Your task to perform on an android device: What's the news in Jamaica? Image 0: 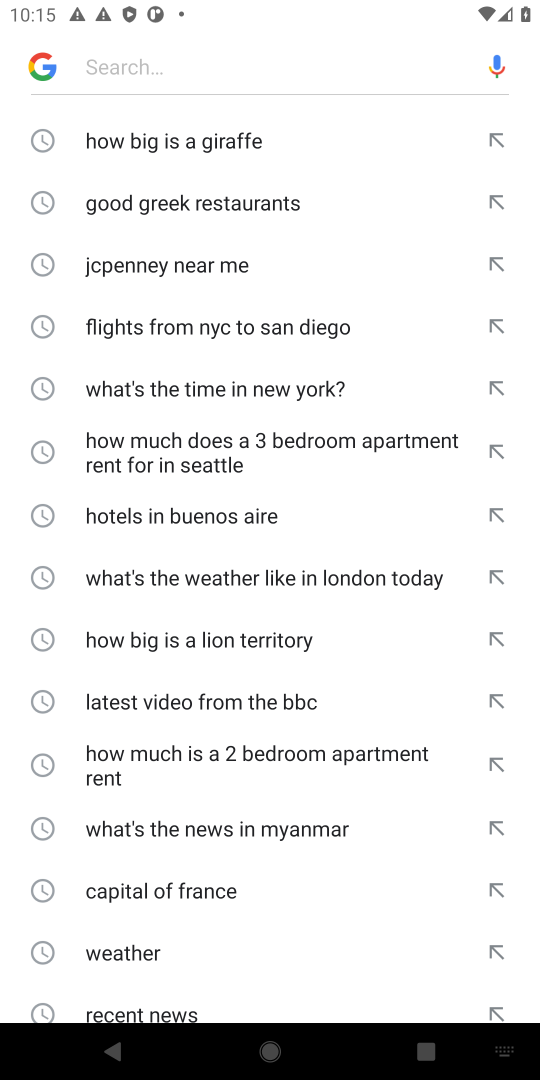
Step 0: click (269, 956)
Your task to perform on an android device: What's the news in Jamaica? Image 1: 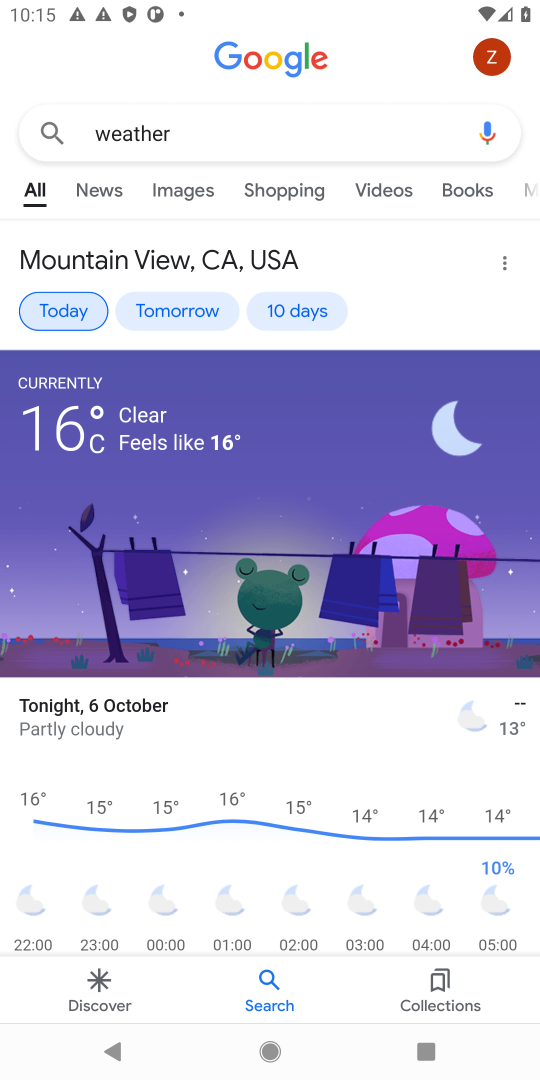
Step 1: click (114, 55)
Your task to perform on an android device: What's the news in Jamaica? Image 2: 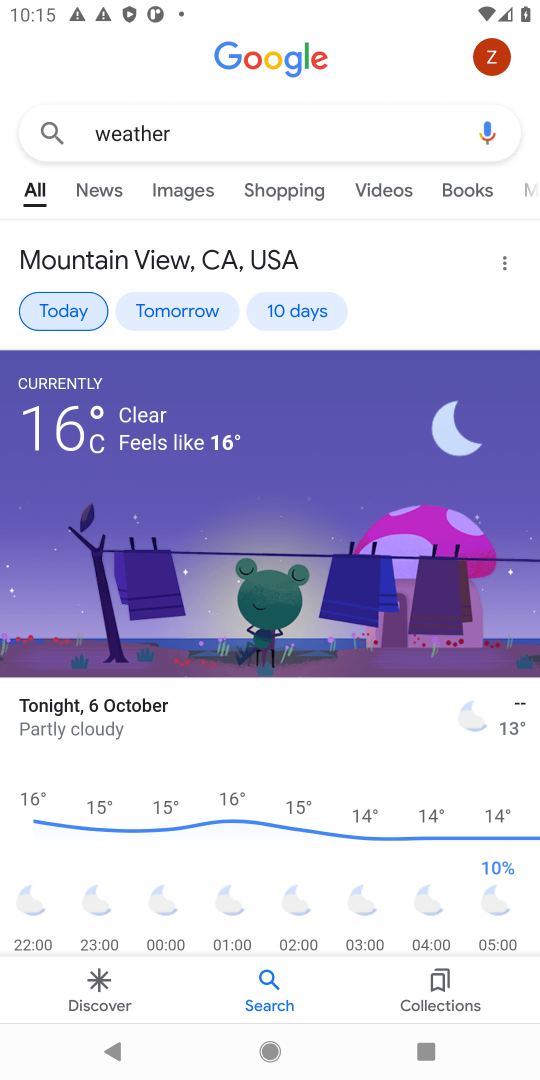
Step 2: click (248, 134)
Your task to perform on an android device: What's the news in Jamaica? Image 3: 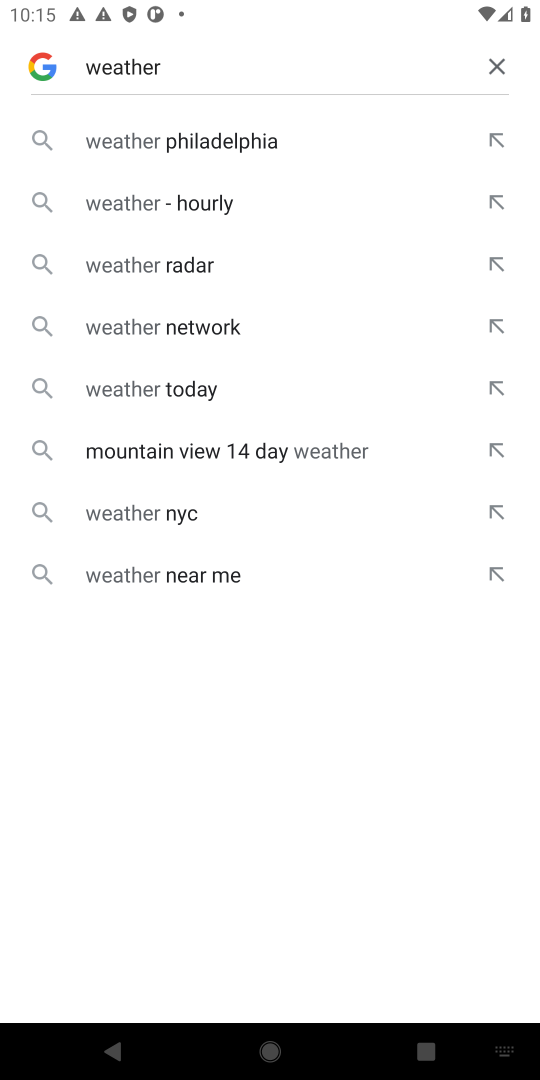
Step 3: click (491, 72)
Your task to perform on an android device: What's the news in Jamaica? Image 4: 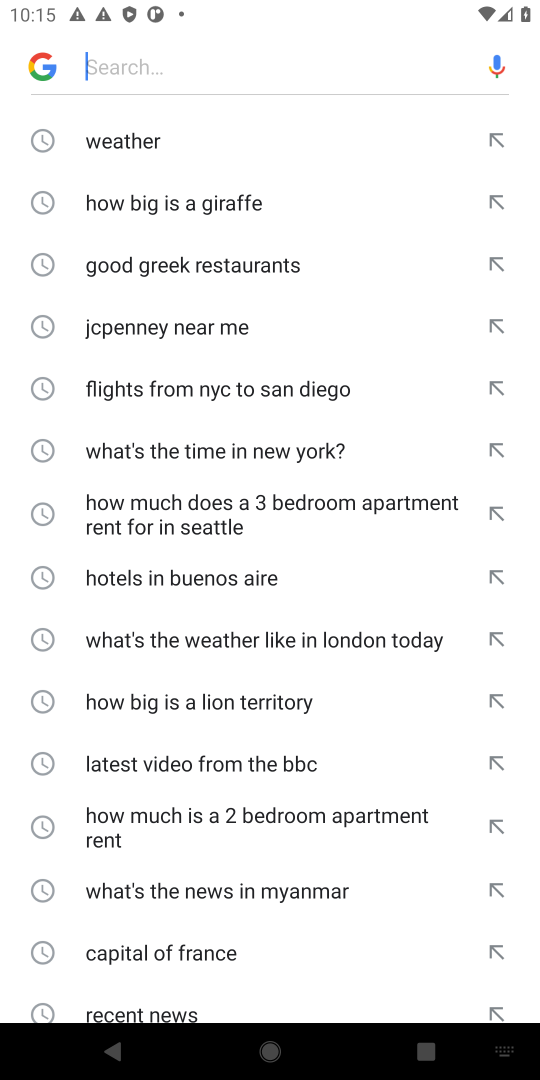
Step 4: type "news in jamaica"
Your task to perform on an android device: What's the news in Jamaica? Image 5: 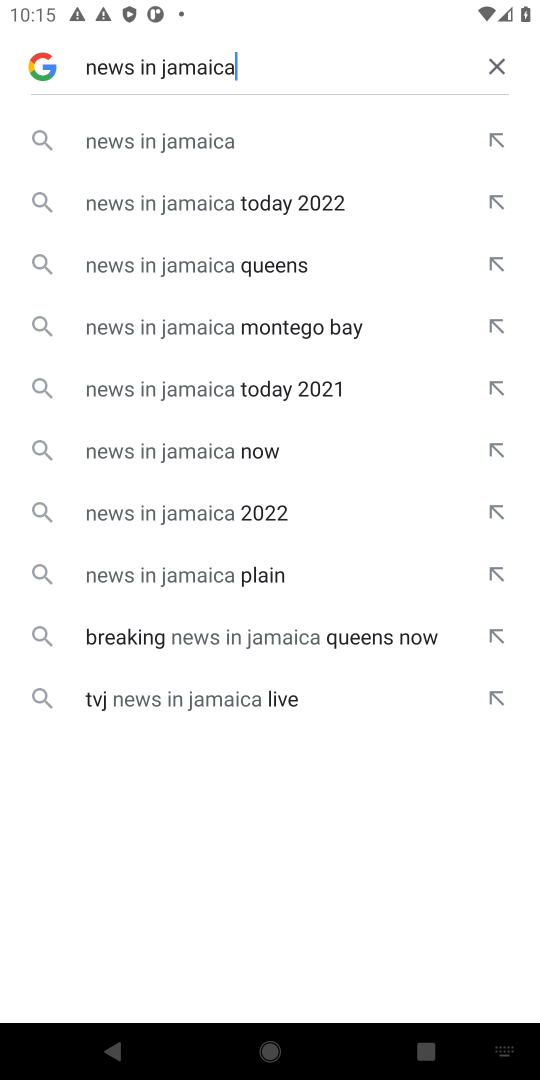
Step 5: type ""
Your task to perform on an android device: What's the news in Jamaica? Image 6: 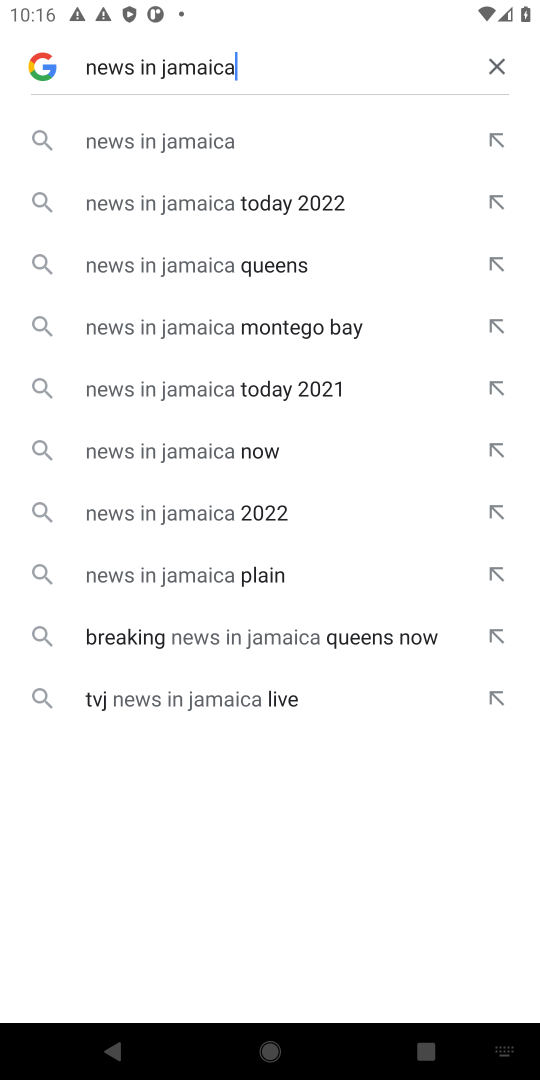
Step 6: click (224, 148)
Your task to perform on an android device: What's the news in Jamaica? Image 7: 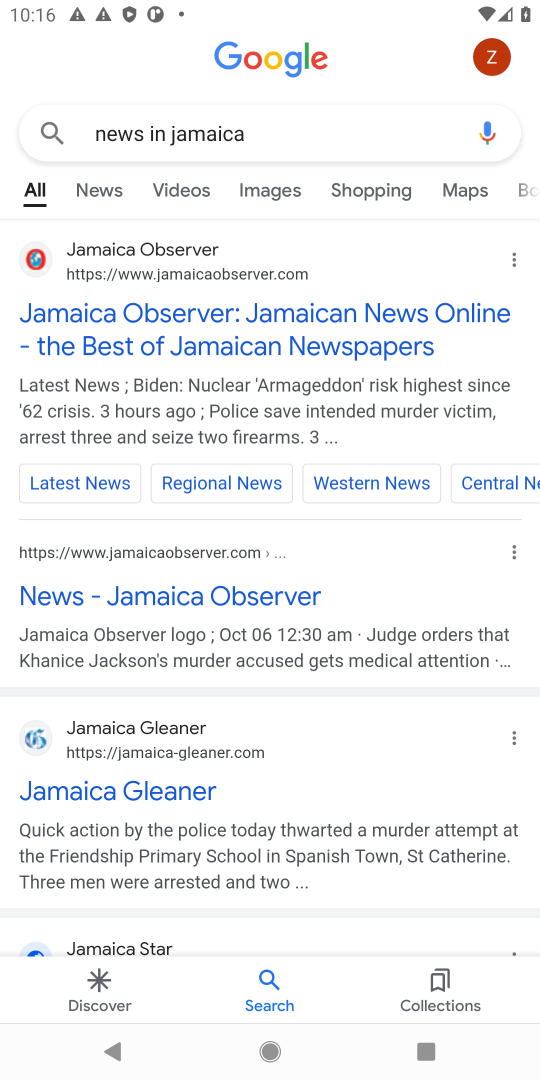
Step 7: click (253, 353)
Your task to perform on an android device: What's the news in Jamaica? Image 8: 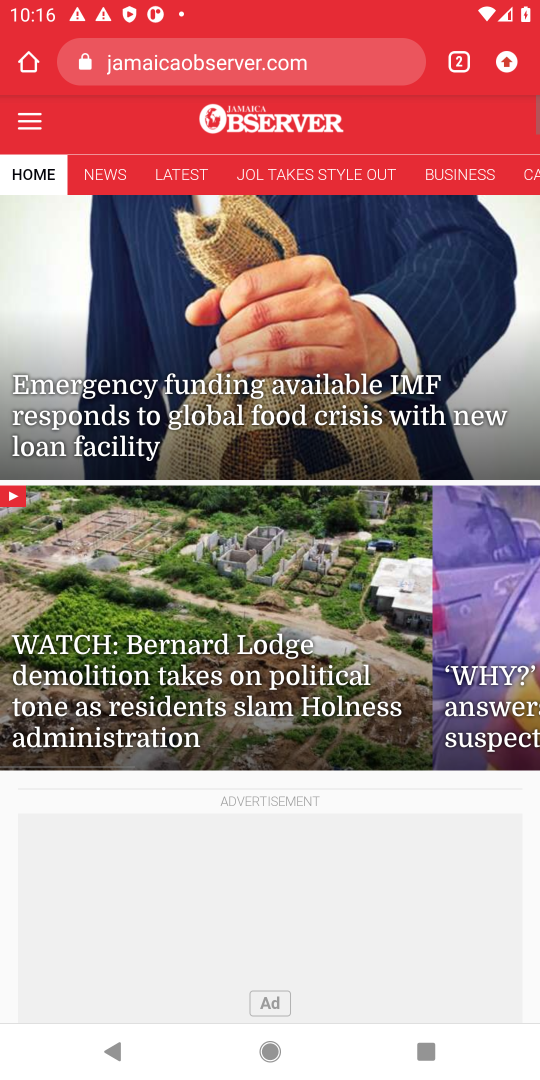
Step 8: drag from (344, 896) to (351, 805)
Your task to perform on an android device: What's the news in Jamaica? Image 9: 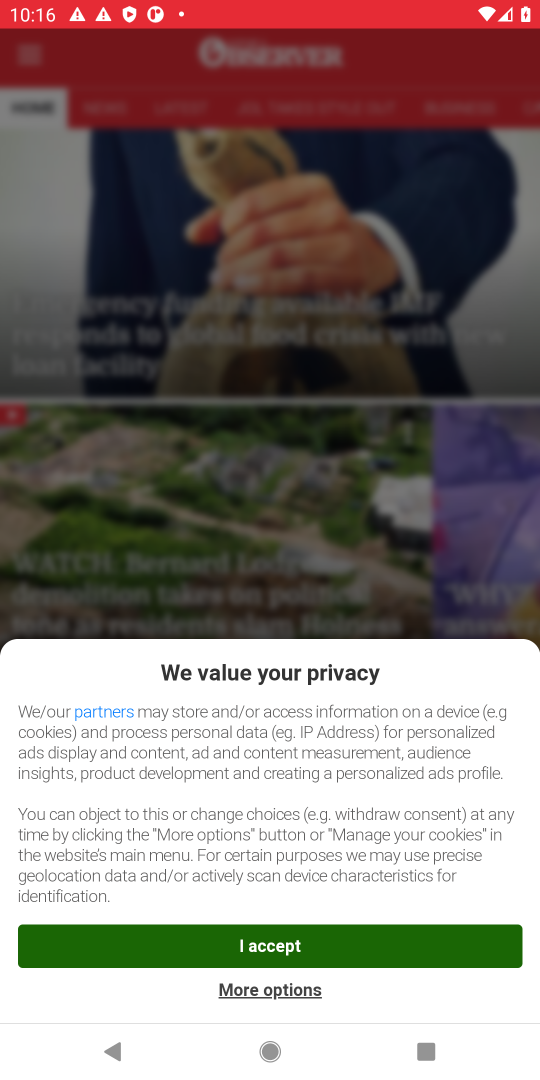
Step 9: click (290, 879)
Your task to perform on an android device: What's the news in Jamaica? Image 10: 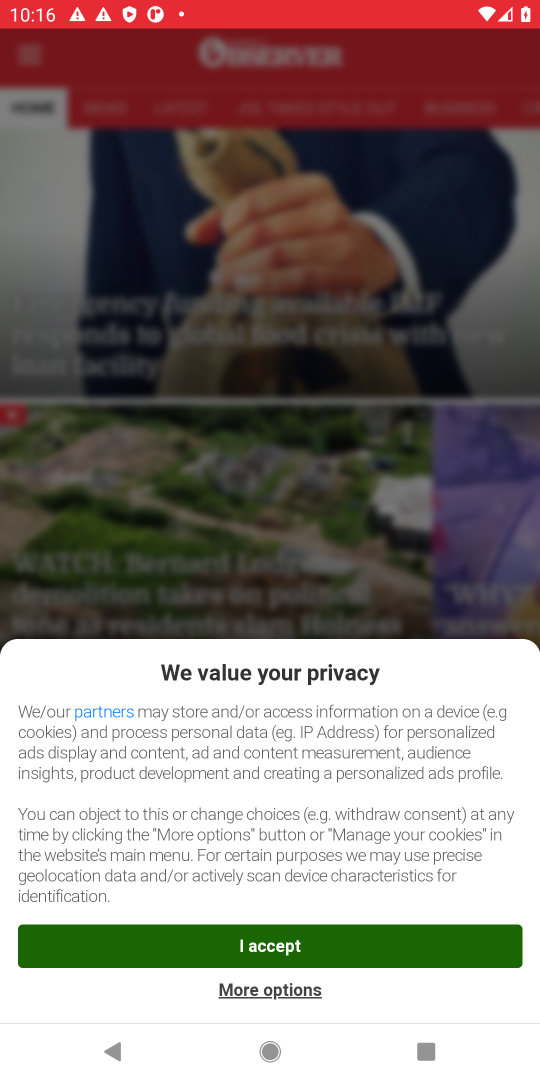
Step 10: click (278, 951)
Your task to perform on an android device: What's the news in Jamaica? Image 11: 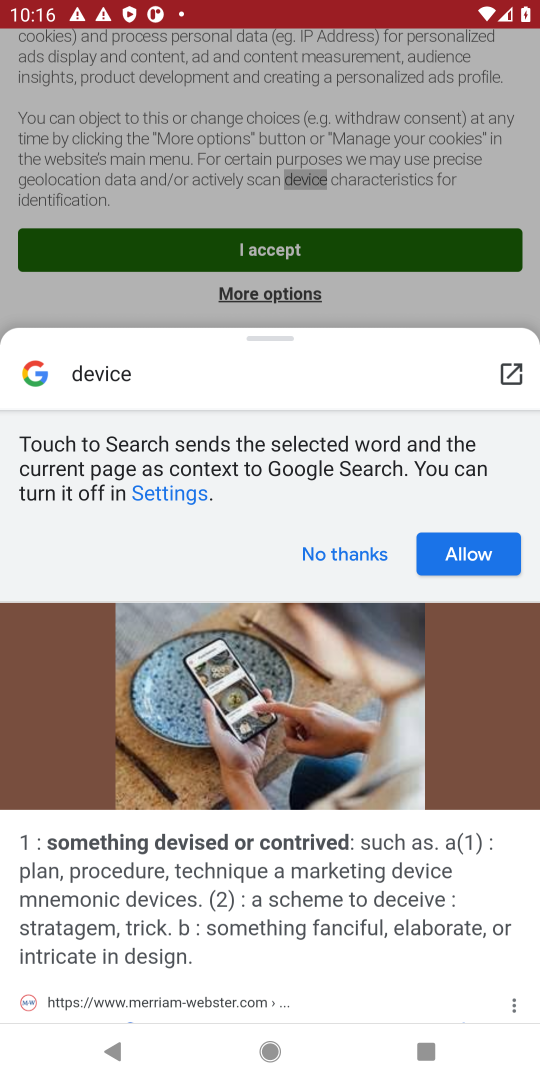
Step 11: click (456, 544)
Your task to perform on an android device: What's the news in Jamaica? Image 12: 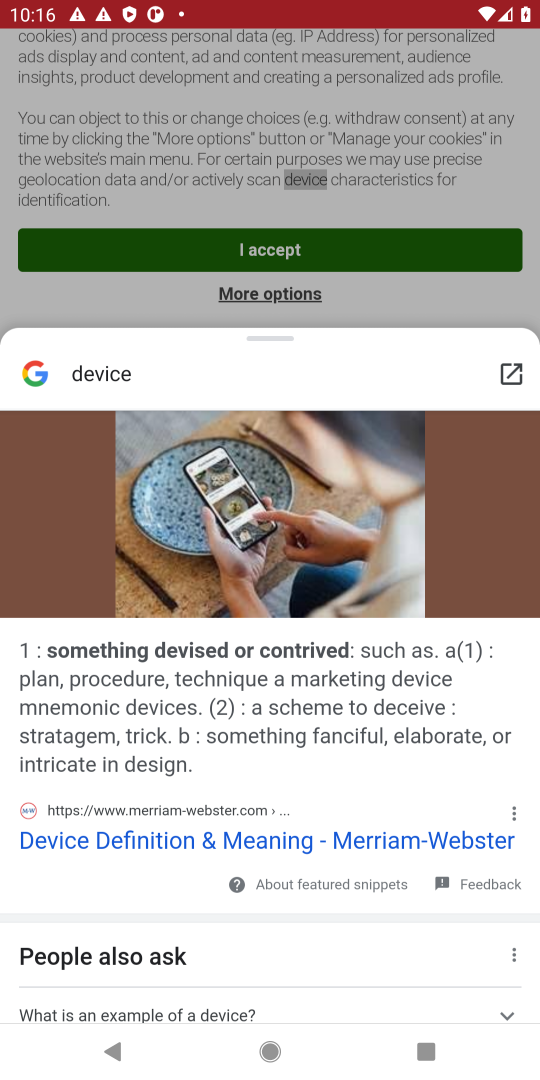
Step 12: drag from (335, 708) to (466, 357)
Your task to perform on an android device: What's the news in Jamaica? Image 13: 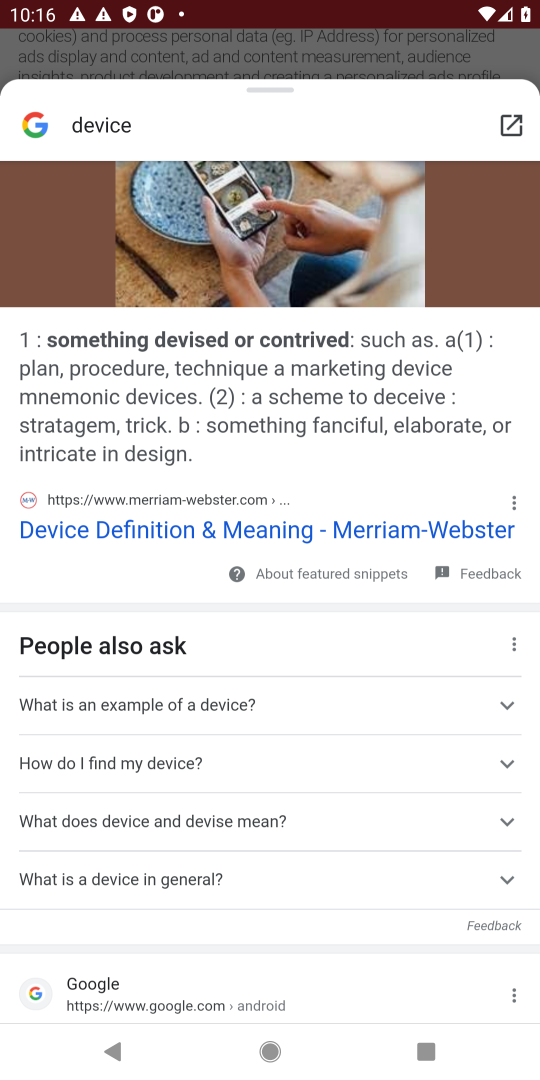
Step 13: drag from (368, 683) to (417, 230)
Your task to perform on an android device: What's the news in Jamaica? Image 14: 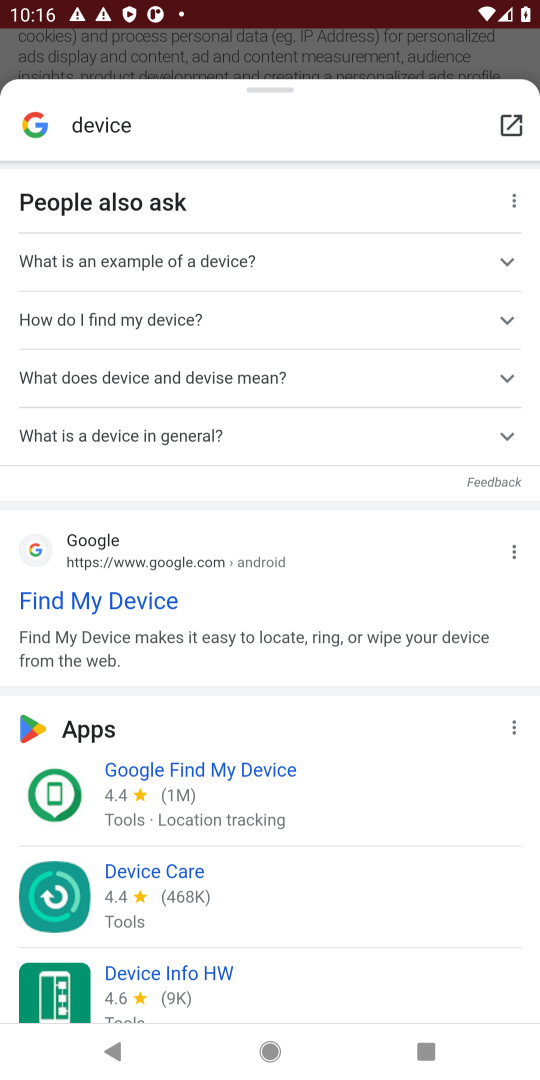
Step 14: drag from (389, 518) to (423, 342)
Your task to perform on an android device: What's the news in Jamaica? Image 15: 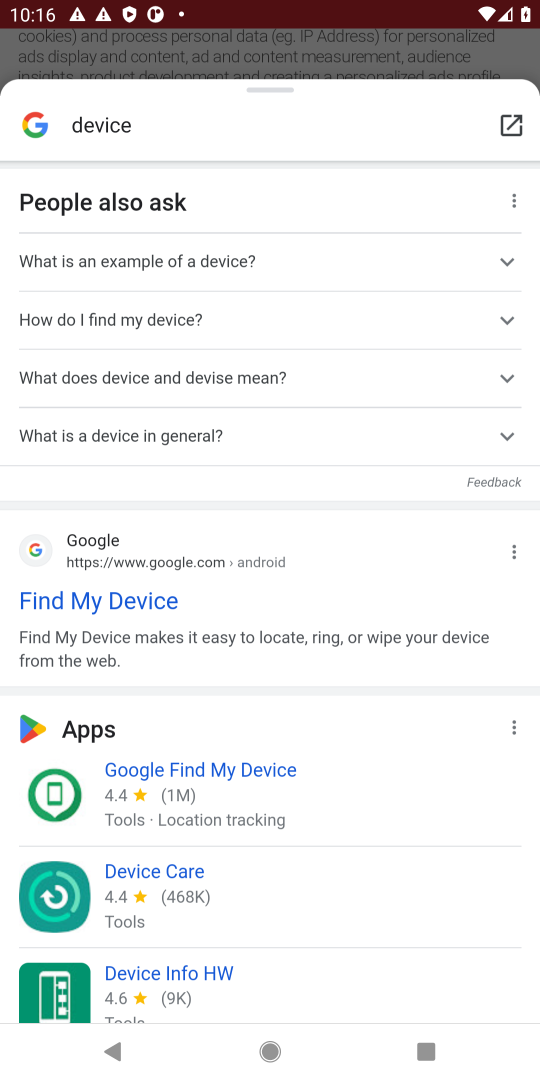
Step 15: drag from (399, 690) to (393, 405)
Your task to perform on an android device: What's the news in Jamaica? Image 16: 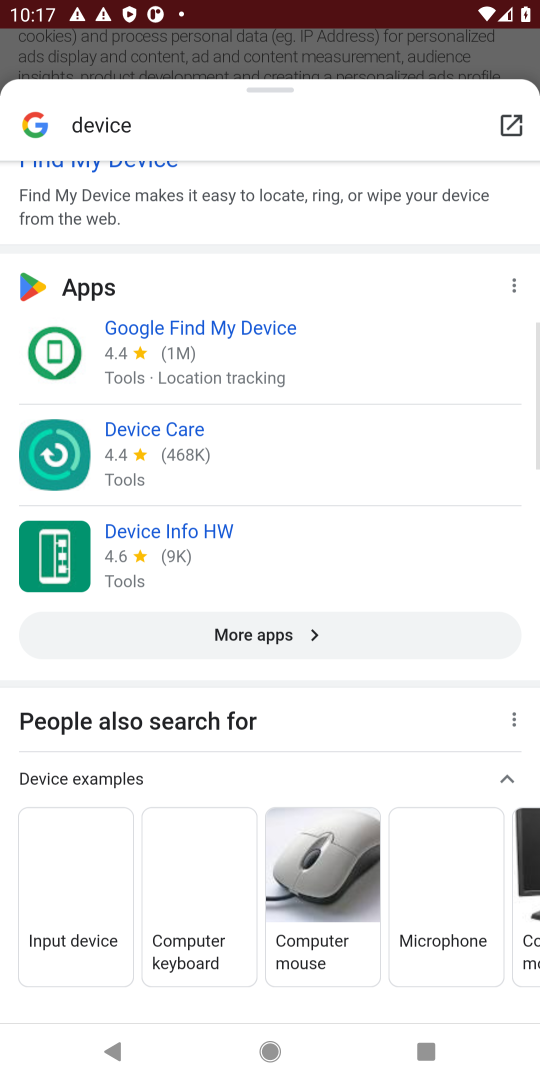
Step 16: drag from (407, 568) to (414, 223)
Your task to perform on an android device: What's the news in Jamaica? Image 17: 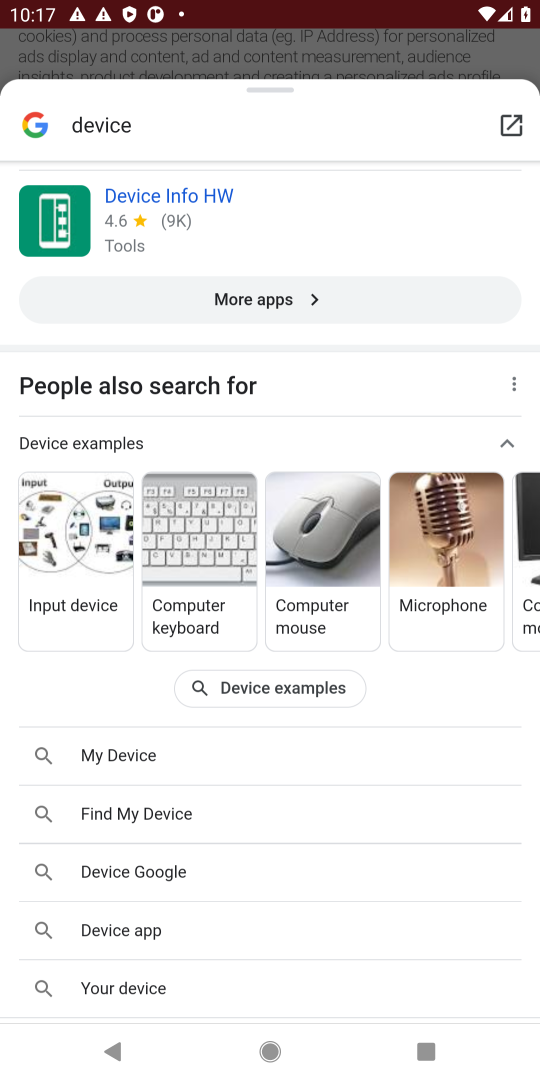
Step 17: drag from (392, 709) to (429, 194)
Your task to perform on an android device: What's the news in Jamaica? Image 18: 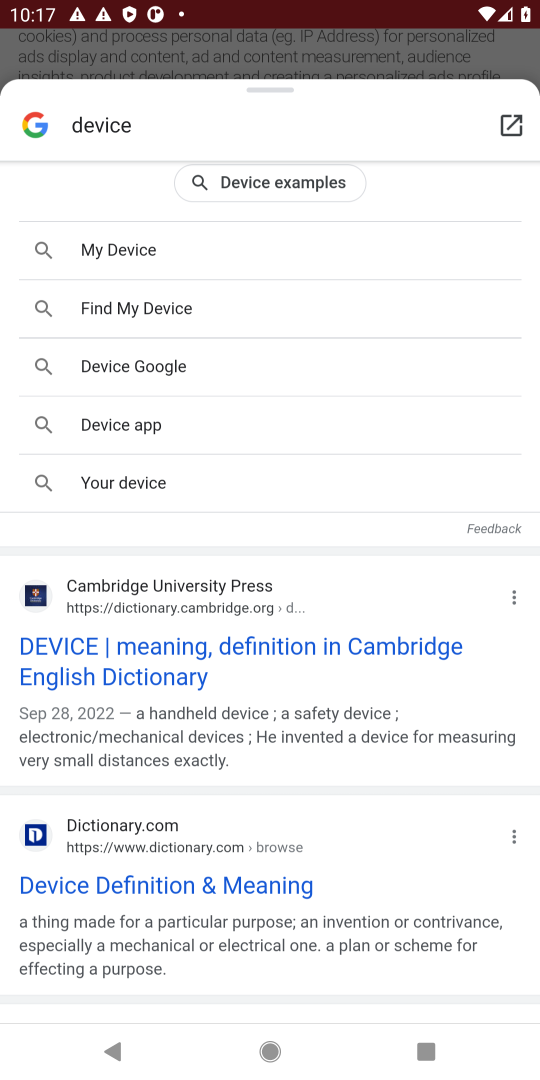
Step 18: drag from (323, 471) to (347, 890)
Your task to perform on an android device: What's the news in Jamaica? Image 19: 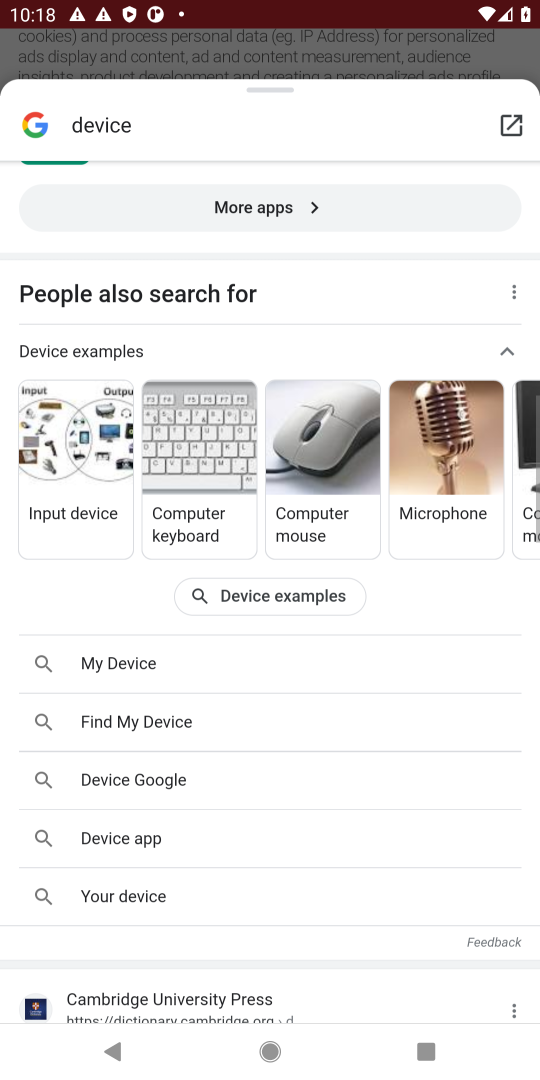
Step 19: drag from (290, 856) to (316, 743)
Your task to perform on an android device: What's the news in Jamaica? Image 20: 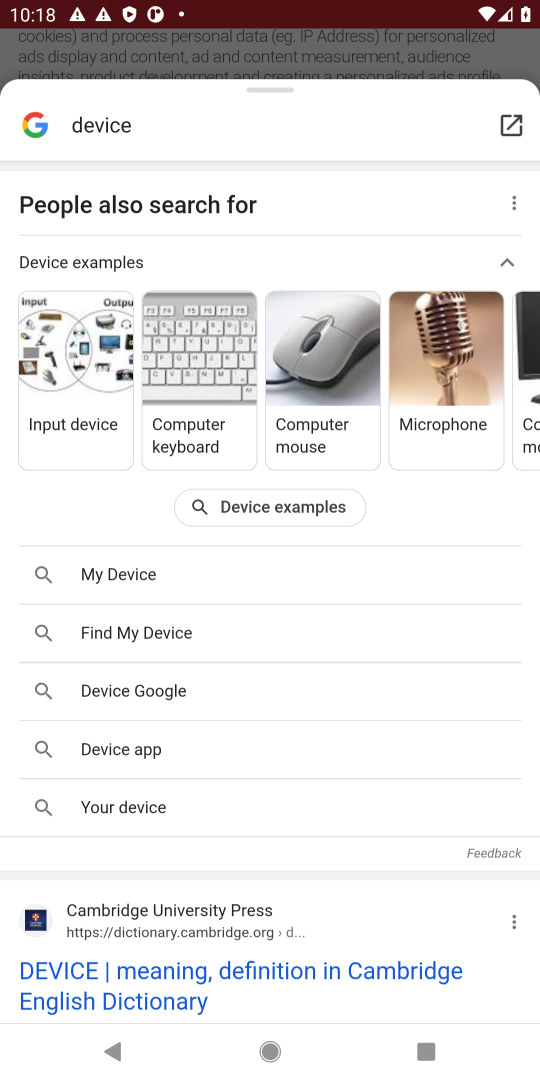
Step 20: click (182, 968)
Your task to perform on an android device: What's the news in Jamaica? Image 21: 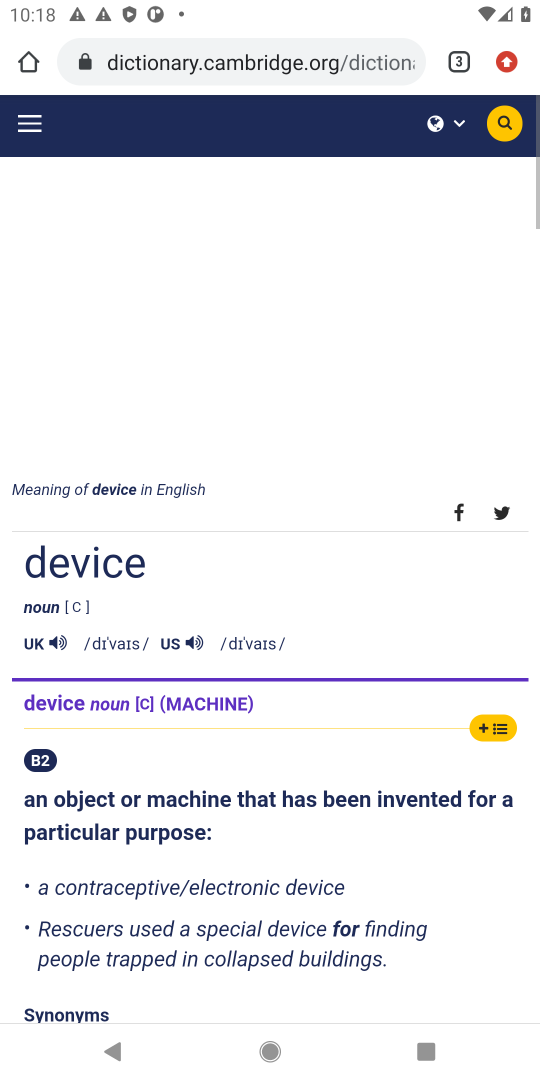
Step 21: drag from (314, 796) to (329, 715)
Your task to perform on an android device: What's the news in Jamaica? Image 22: 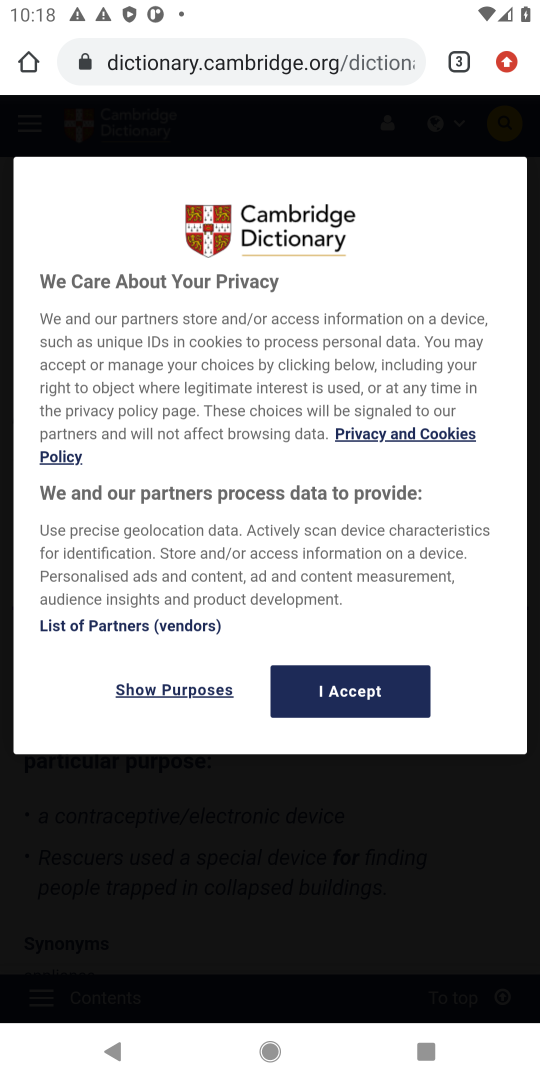
Step 22: click (338, 688)
Your task to perform on an android device: What's the news in Jamaica? Image 23: 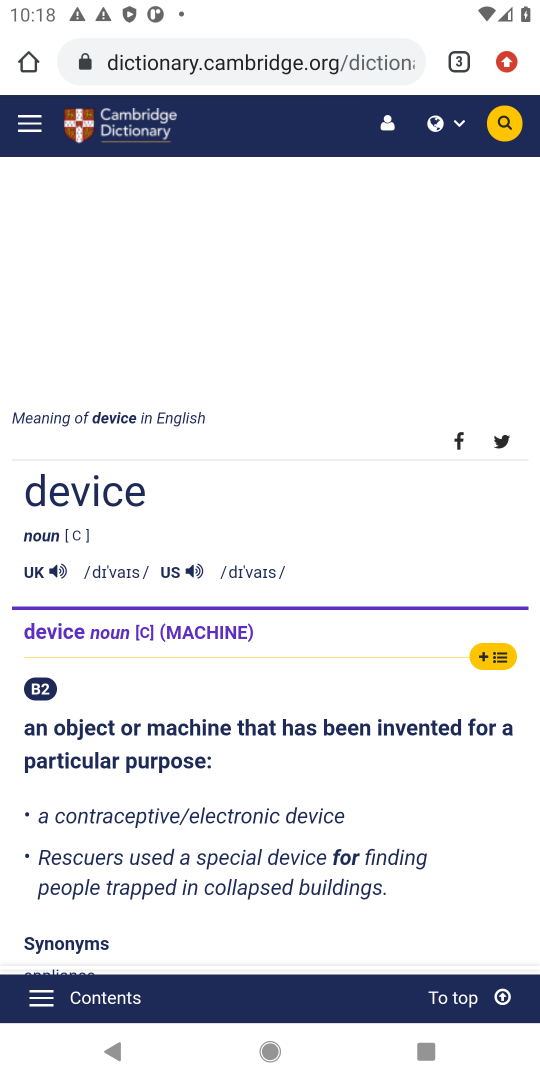
Step 23: click (338, 686)
Your task to perform on an android device: What's the news in Jamaica? Image 24: 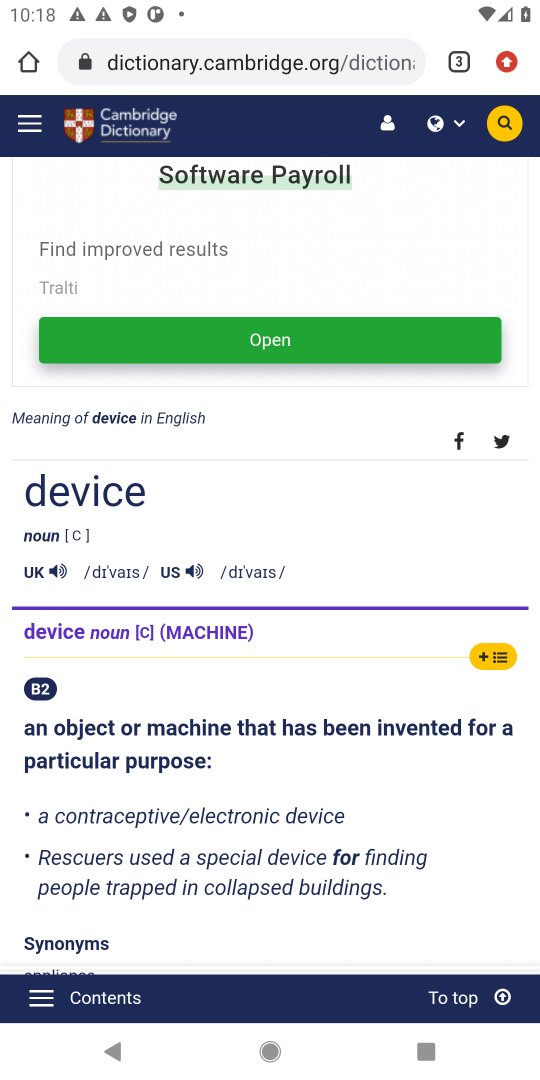
Step 24: drag from (312, 725) to (342, 502)
Your task to perform on an android device: What's the news in Jamaica? Image 25: 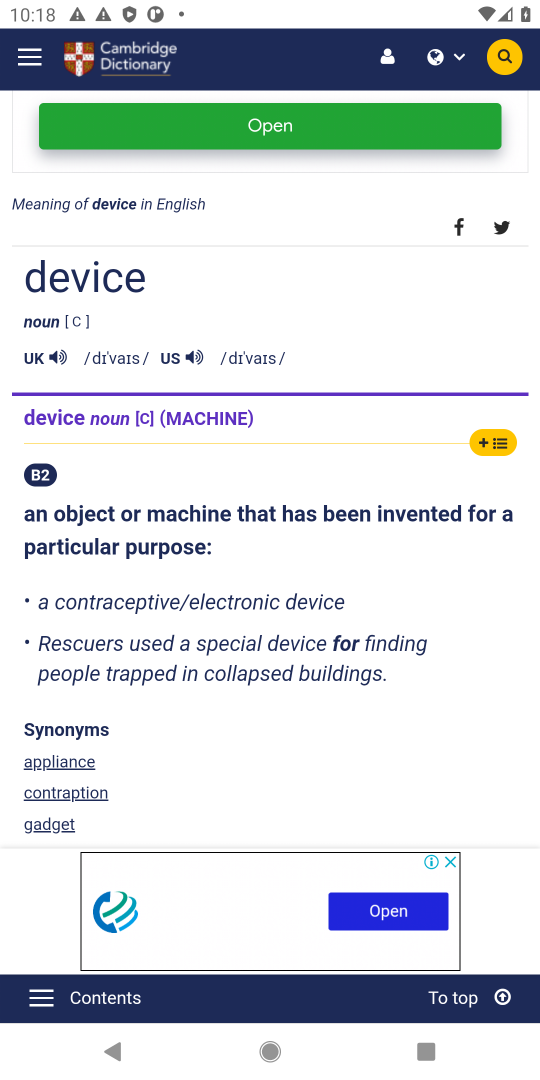
Step 25: drag from (284, 752) to (357, 420)
Your task to perform on an android device: What's the news in Jamaica? Image 26: 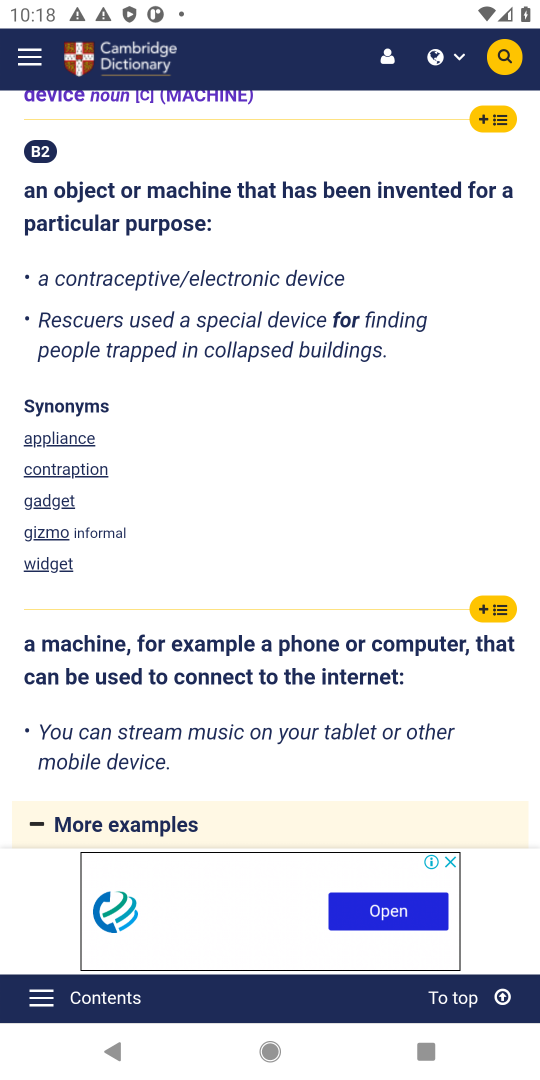
Step 26: drag from (302, 641) to (380, 379)
Your task to perform on an android device: What's the news in Jamaica? Image 27: 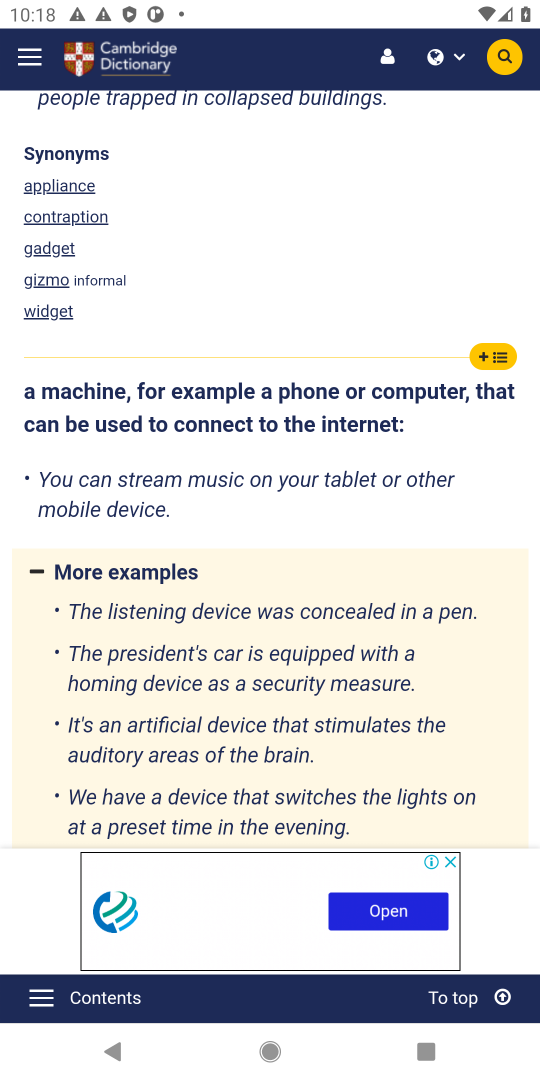
Step 27: drag from (351, 769) to (418, 206)
Your task to perform on an android device: What's the news in Jamaica? Image 28: 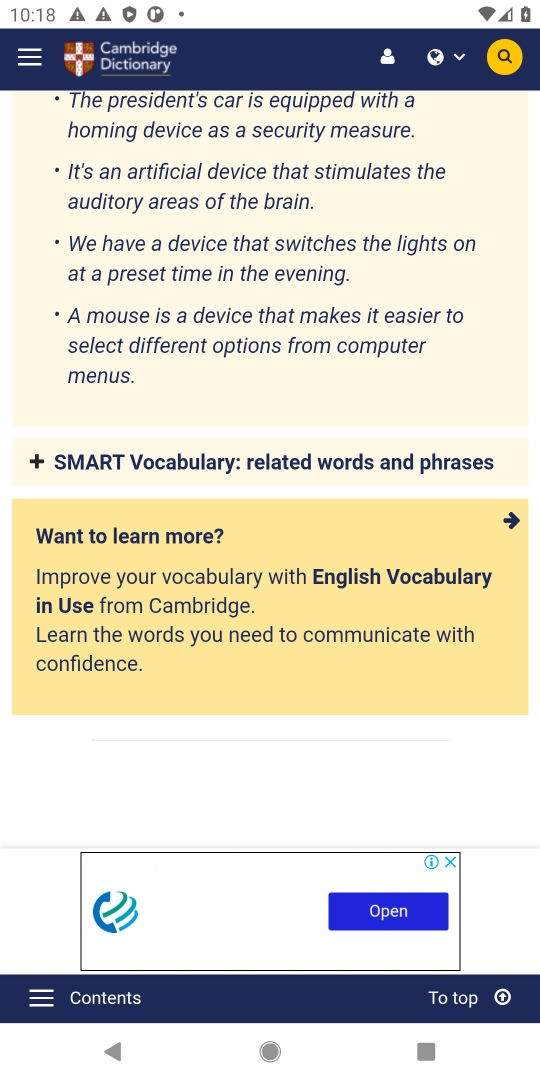
Step 28: drag from (346, 660) to (425, 202)
Your task to perform on an android device: What's the news in Jamaica? Image 29: 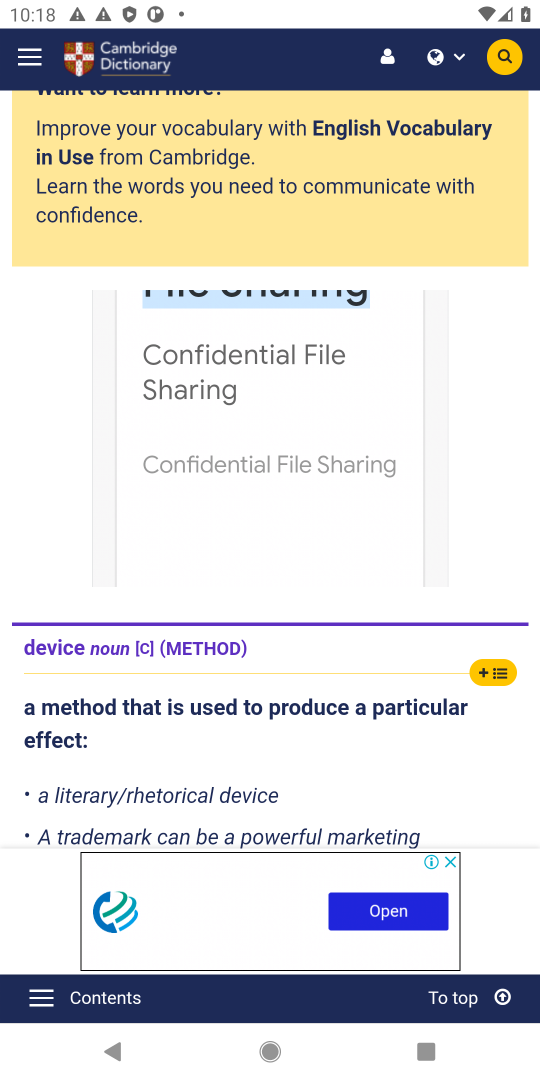
Step 29: drag from (394, 580) to (436, 242)
Your task to perform on an android device: What's the news in Jamaica? Image 30: 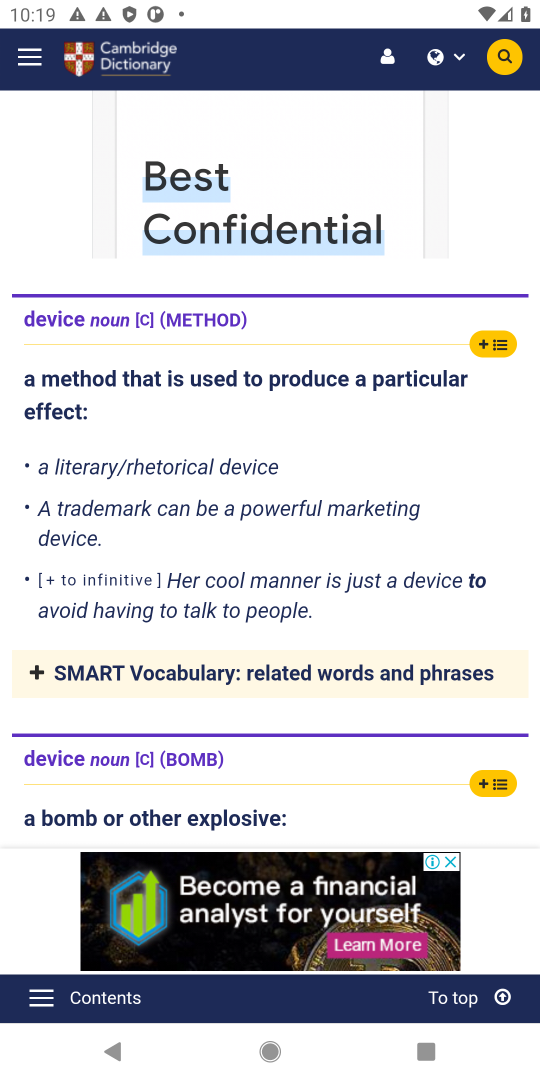
Step 30: click (382, 474)
Your task to perform on an android device: What's the news in Jamaica? Image 31: 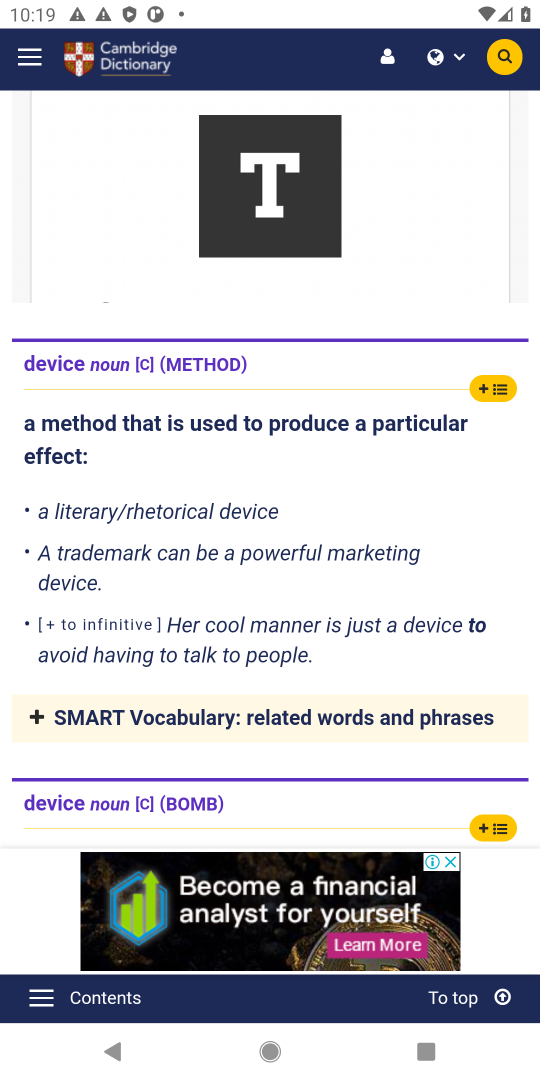
Step 31: task complete